Your task to perform on an android device: Open maps Image 0: 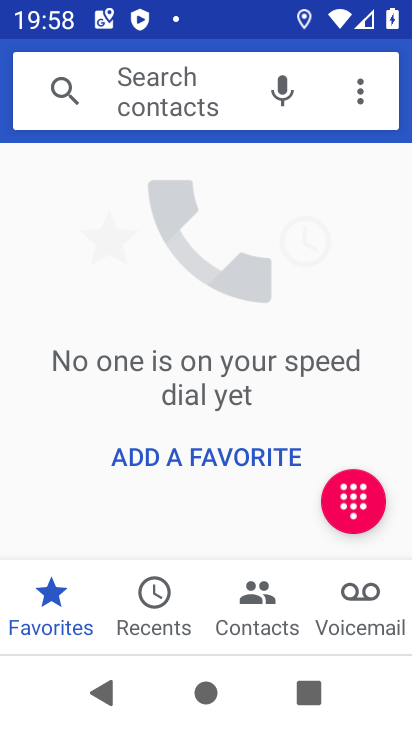
Step 0: press home button
Your task to perform on an android device: Open maps Image 1: 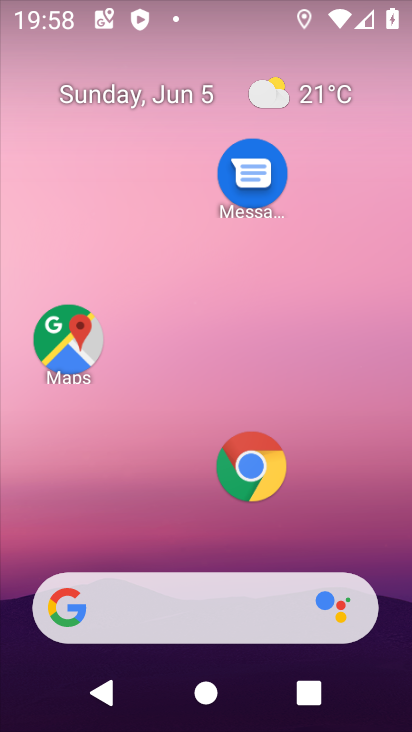
Step 1: drag from (222, 554) to (285, 214)
Your task to perform on an android device: Open maps Image 2: 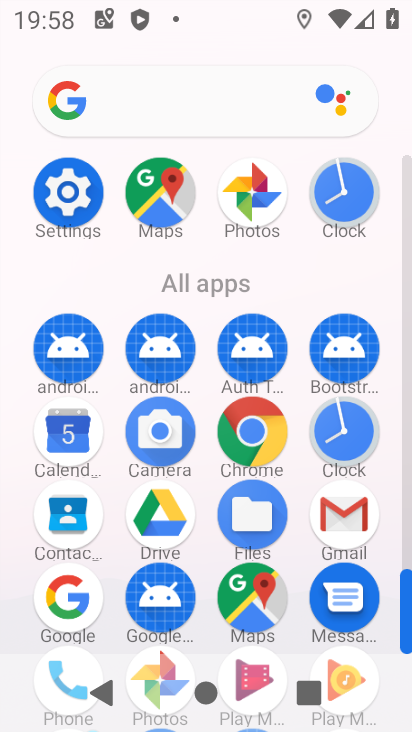
Step 2: click (247, 589)
Your task to perform on an android device: Open maps Image 3: 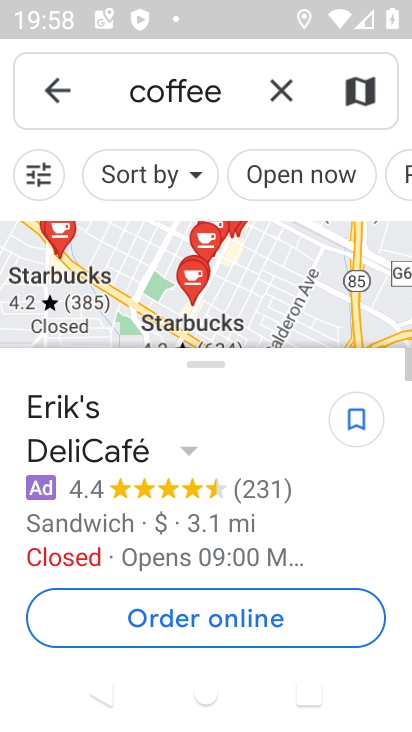
Step 3: task complete